Your task to perform on an android device: delete browsing data in the chrome app Image 0: 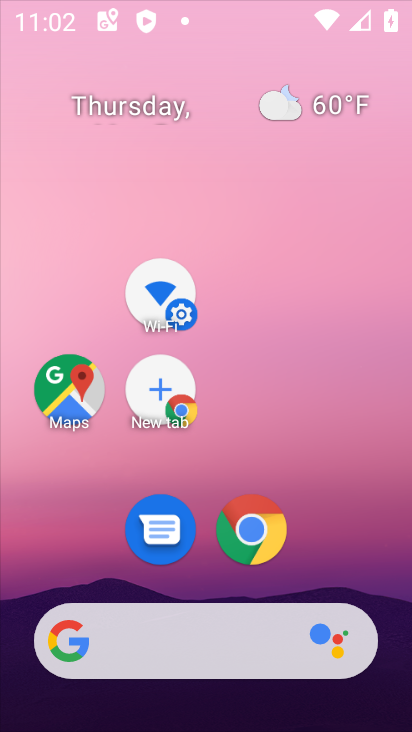
Step 0: drag from (408, 490) to (75, 7)
Your task to perform on an android device: delete browsing data in the chrome app Image 1: 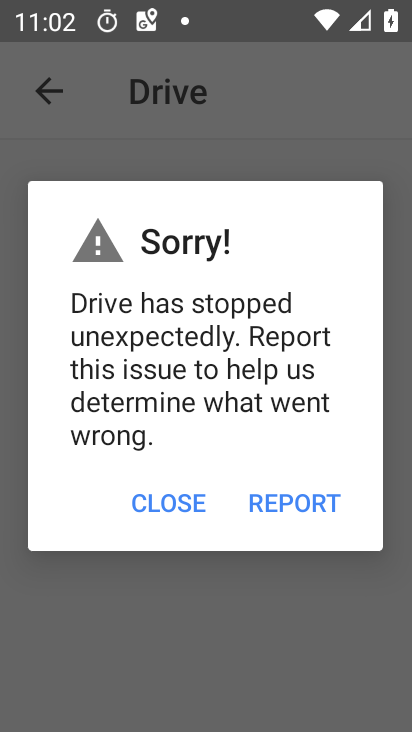
Step 1: click (182, 500)
Your task to perform on an android device: delete browsing data in the chrome app Image 2: 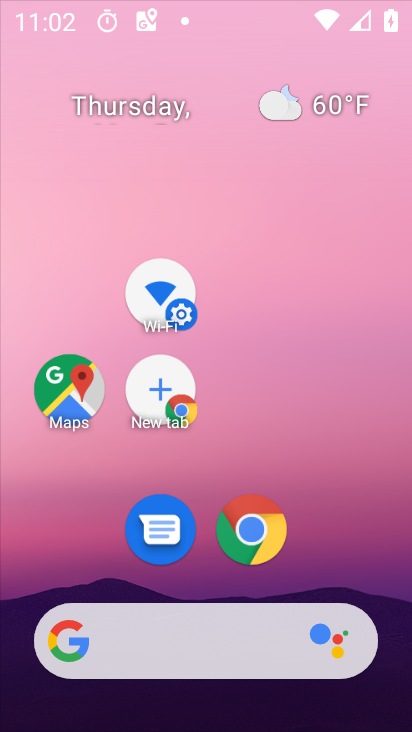
Step 2: click (54, 83)
Your task to perform on an android device: delete browsing data in the chrome app Image 3: 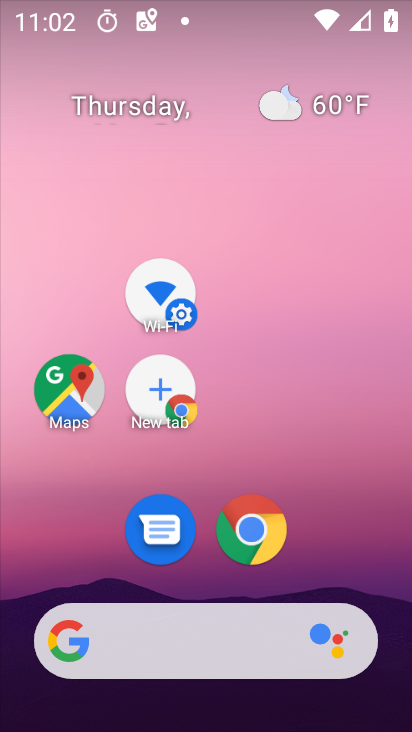
Step 3: drag from (374, 514) to (0, 17)
Your task to perform on an android device: delete browsing data in the chrome app Image 4: 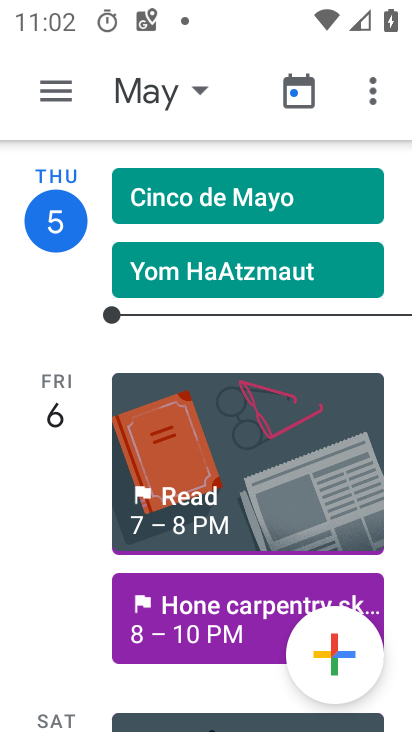
Step 4: press home button
Your task to perform on an android device: delete browsing data in the chrome app Image 5: 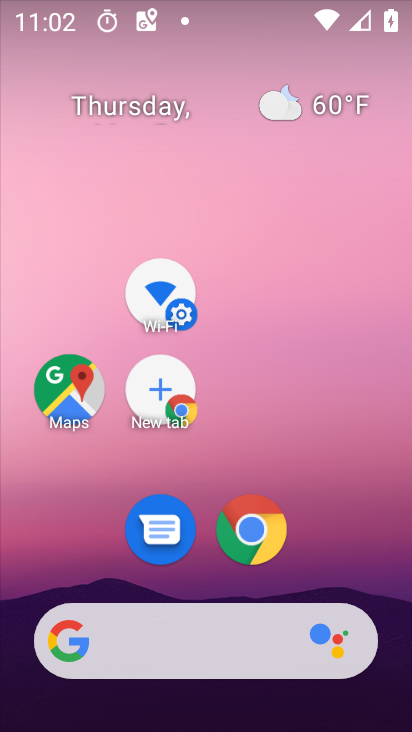
Step 5: drag from (365, 564) to (90, 6)
Your task to perform on an android device: delete browsing data in the chrome app Image 6: 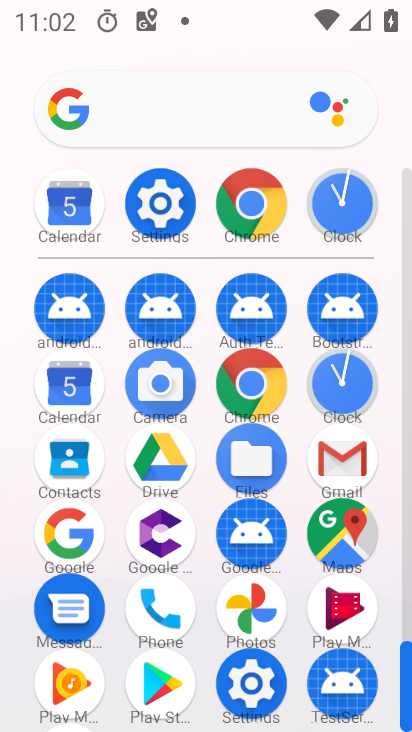
Step 6: click (249, 209)
Your task to perform on an android device: delete browsing data in the chrome app Image 7: 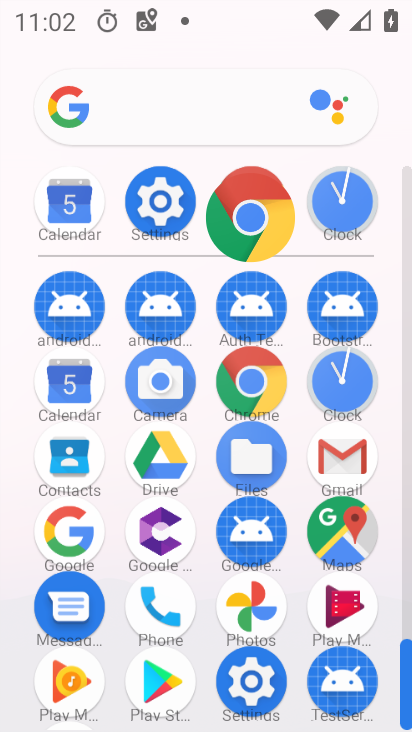
Step 7: click (250, 208)
Your task to perform on an android device: delete browsing data in the chrome app Image 8: 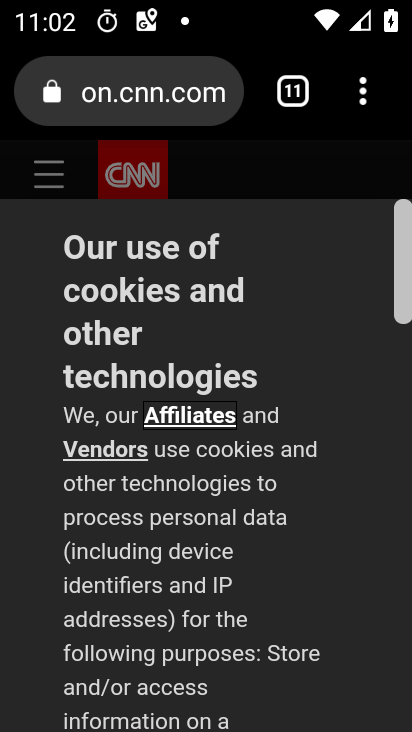
Step 8: click (360, 94)
Your task to perform on an android device: delete browsing data in the chrome app Image 9: 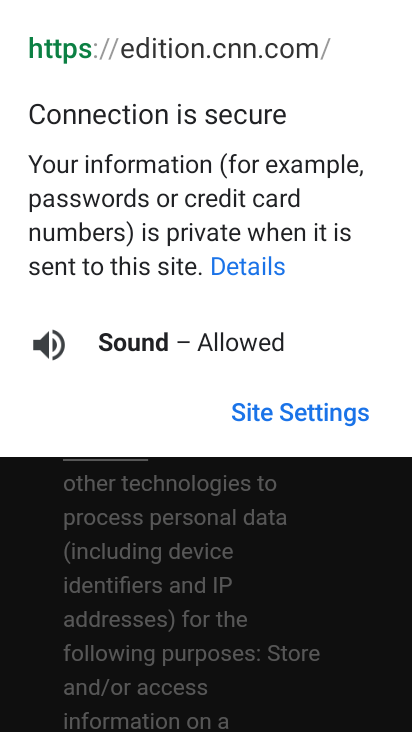
Step 9: click (199, 556)
Your task to perform on an android device: delete browsing data in the chrome app Image 10: 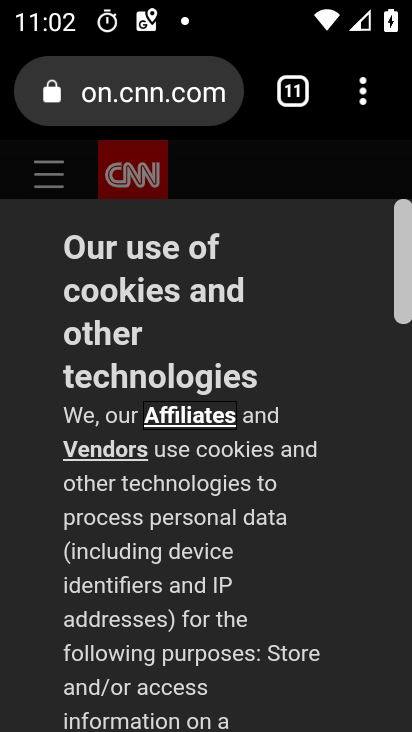
Step 10: drag from (359, 79) to (91, 511)
Your task to perform on an android device: delete browsing data in the chrome app Image 11: 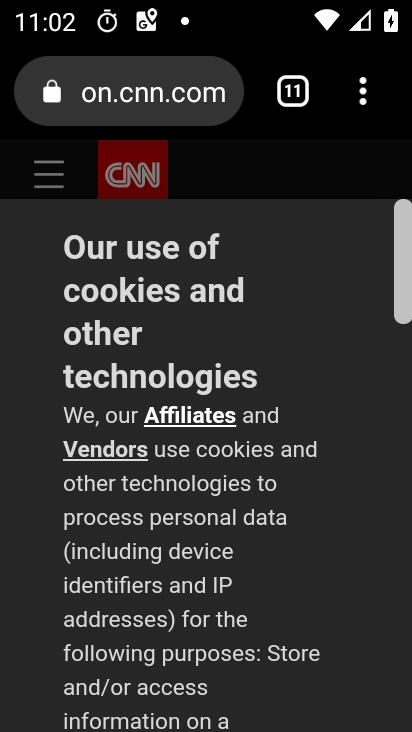
Step 11: click (89, 512)
Your task to perform on an android device: delete browsing data in the chrome app Image 12: 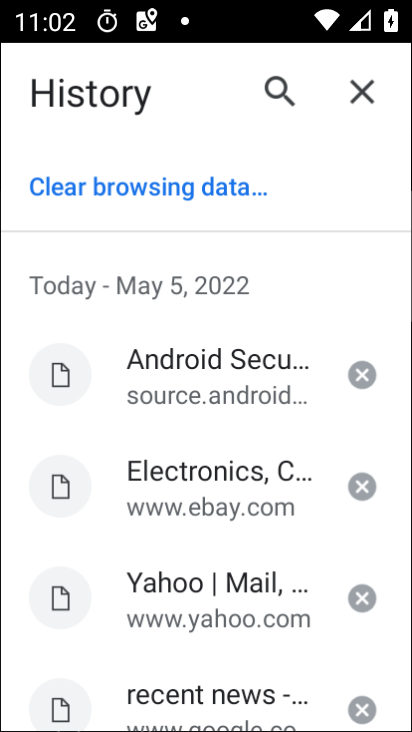
Step 12: click (89, 512)
Your task to perform on an android device: delete browsing data in the chrome app Image 13: 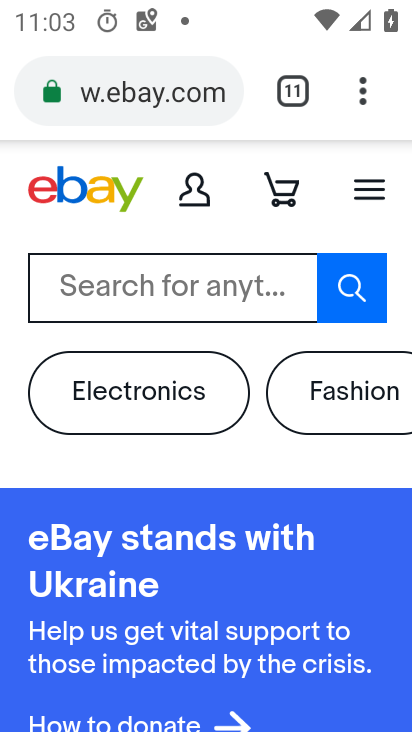
Step 13: press back button
Your task to perform on an android device: delete browsing data in the chrome app Image 14: 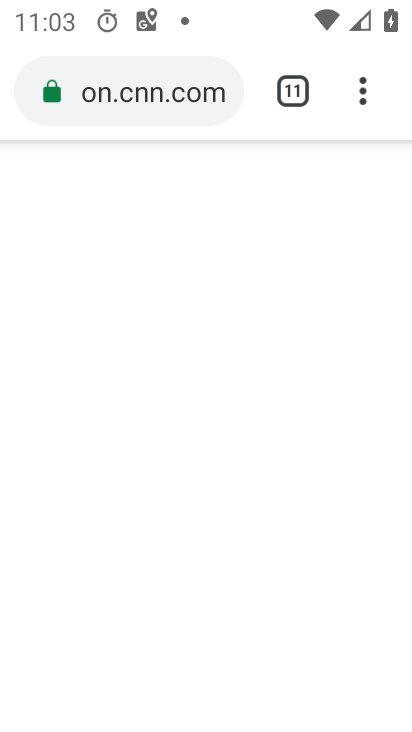
Step 14: press back button
Your task to perform on an android device: delete browsing data in the chrome app Image 15: 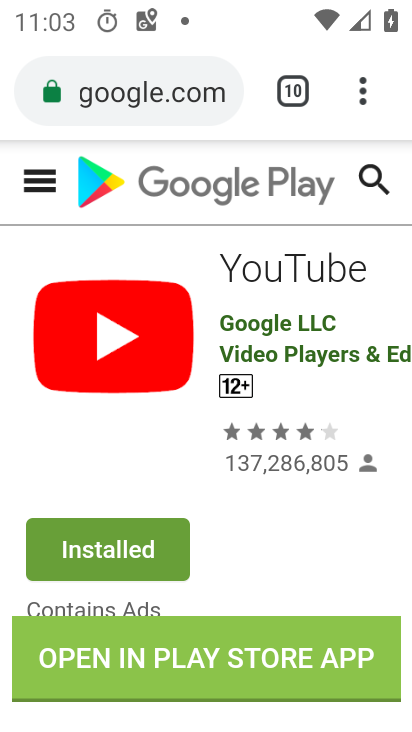
Step 15: press back button
Your task to perform on an android device: delete browsing data in the chrome app Image 16: 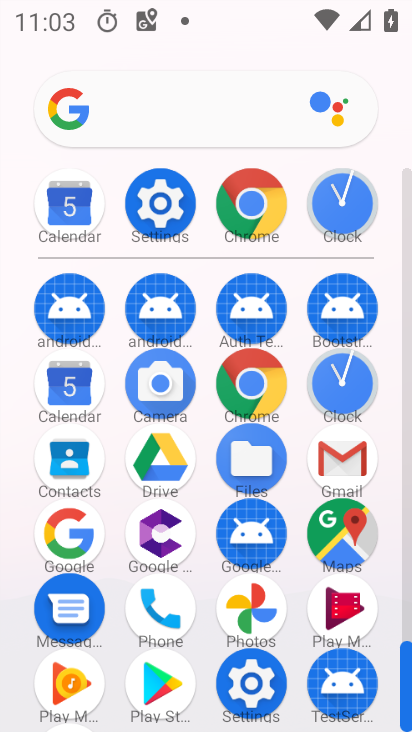
Step 16: click (241, 210)
Your task to perform on an android device: delete browsing data in the chrome app Image 17: 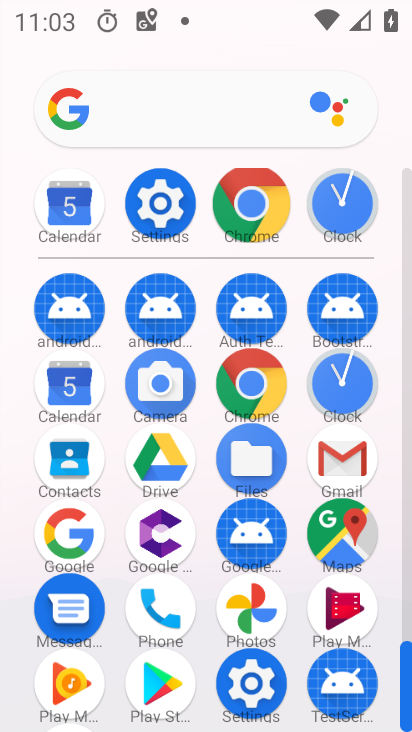
Step 17: click (242, 209)
Your task to perform on an android device: delete browsing data in the chrome app Image 18: 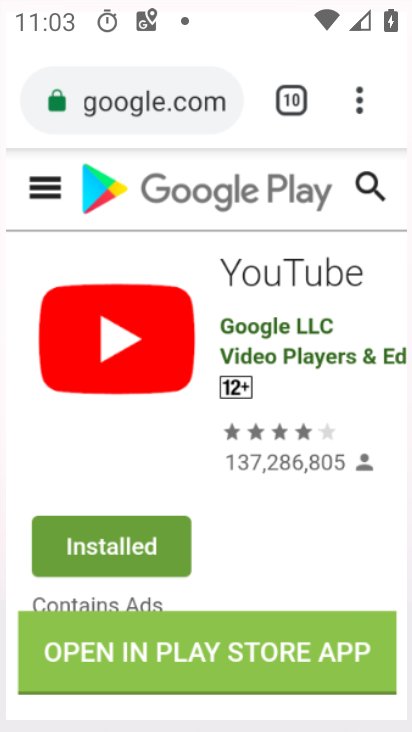
Step 18: click (242, 209)
Your task to perform on an android device: delete browsing data in the chrome app Image 19: 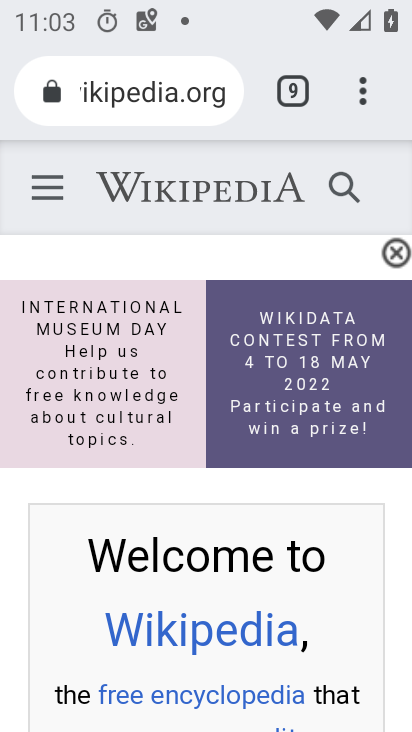
Step 19: drag from (362, 99) to (114, 517)
Your task to perform on an android device: delete browsing data in the chrome app Image 20: 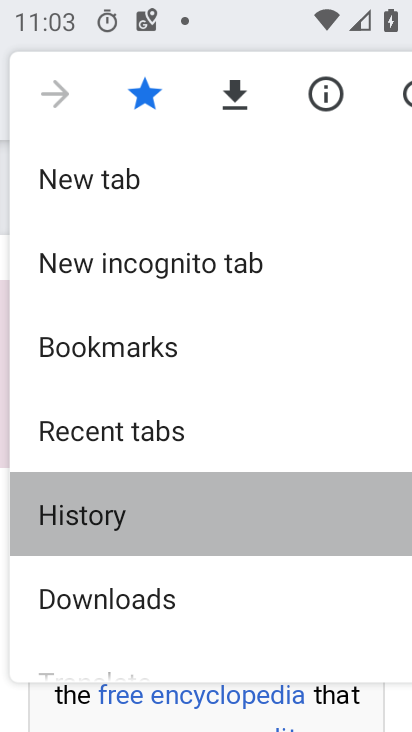
Step 20: click (114, 517)
Your task to perform on an android device: delete browsing data in the chrome app Image 21: 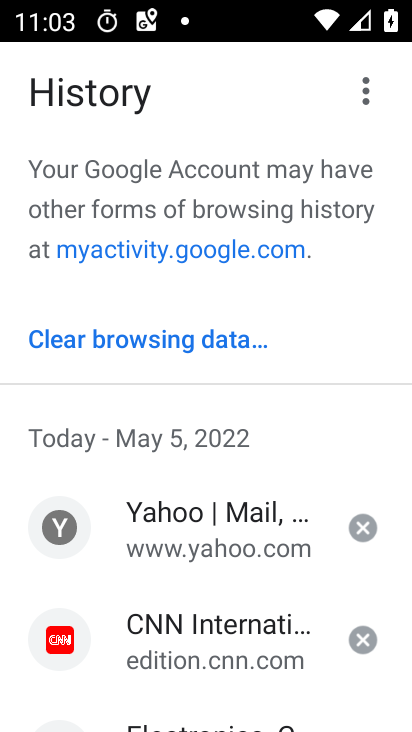
Step 21: click (242, 341)
Your task to perform on an android device: delete browsing data in the chrome app Image 22: 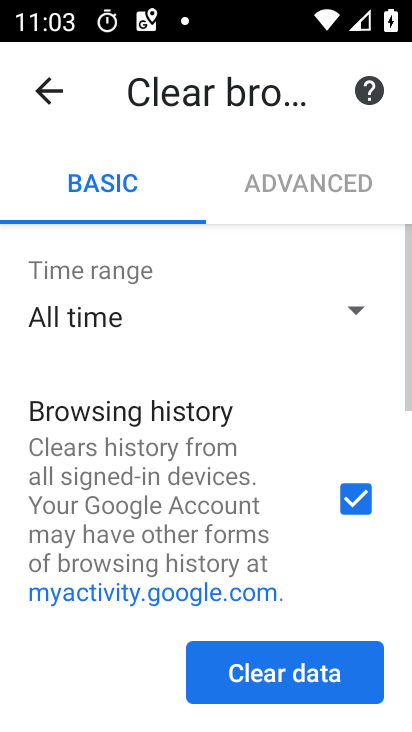
Step 22: click (37, 96)
Your task to perform on an android device: delete browsing data in the chrome app Image 23: 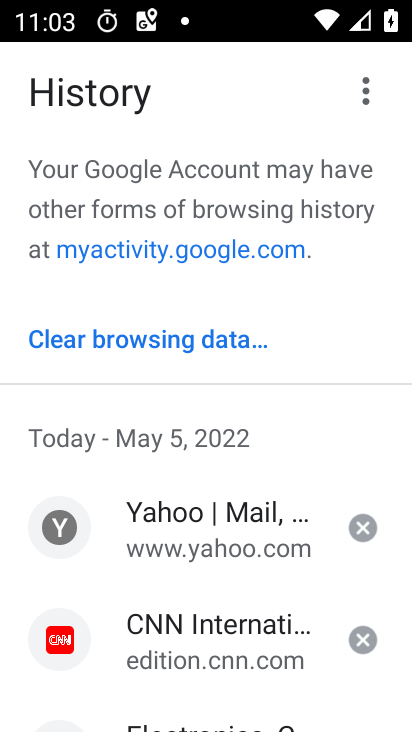
Step 23: click (368, 529)
Your task to perform on an android device: delete browsing data in the chrome app Image 24: 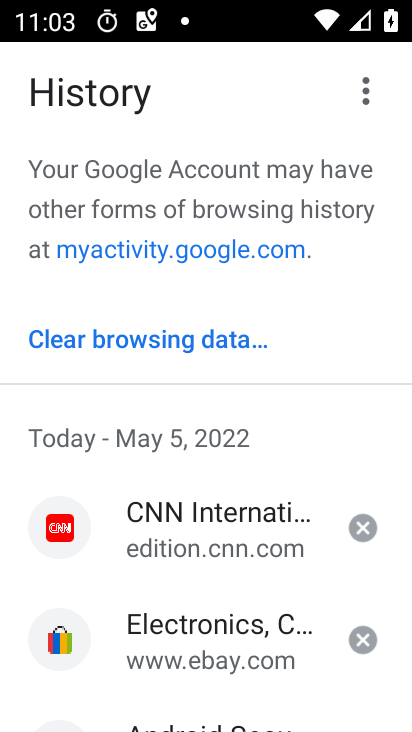
Step 24: click (367, 522)
Your task to perform on an android device: delete browsing data in the chrome app Image 25: 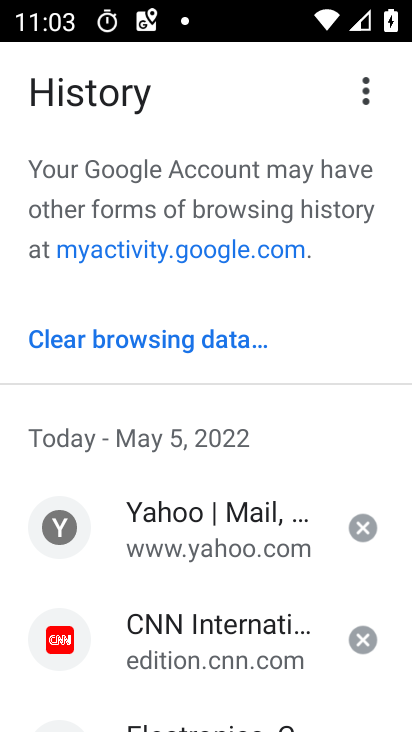
Step 25: task complete